Your task to perform on an android device: open a bookmark in the chrome app Image 0: 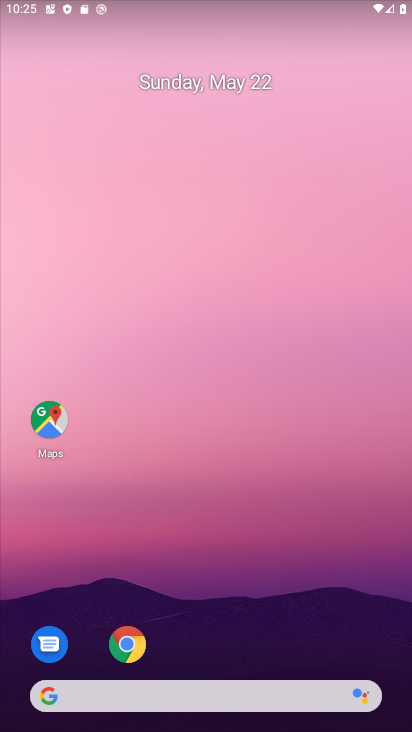
Step 0: click (129, 640)
Your task to perform on an android device: open a bookmark in the chrome app Image 1: 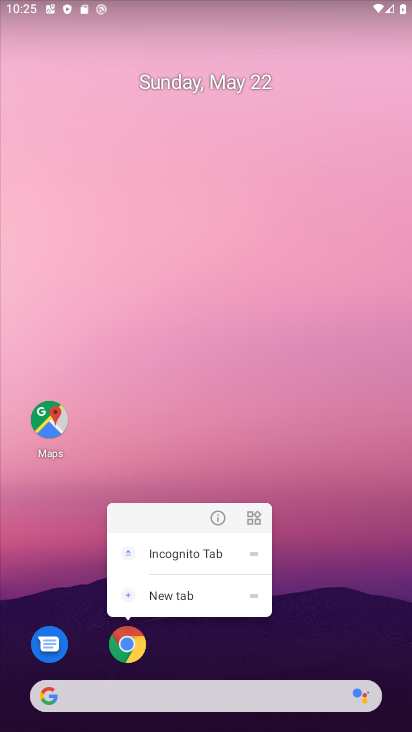
Step 1: click (133, 647)
Your task to perform on an android device: open a bookmark in the chrome app Image 2: 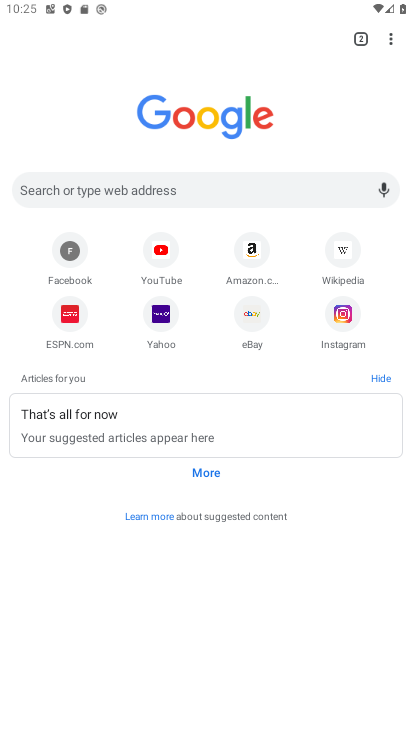
Step 2: click (391, 38)
Your task to perform on an android device: open a bookmark in the chrome app Image 3: 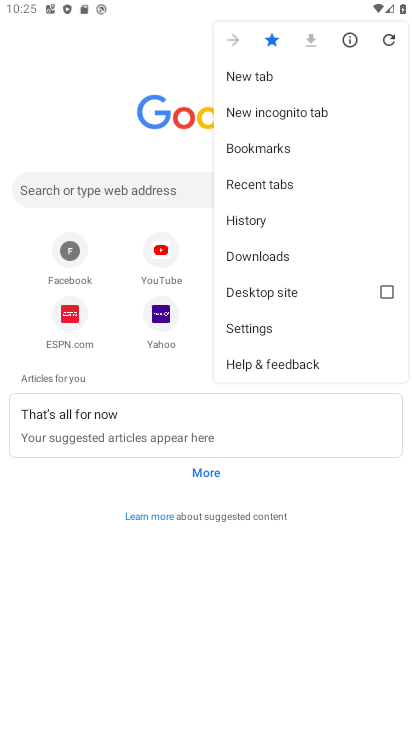
Step 3: click (238, 328)
Your task to perform on an android device: open a bookmark in the chrome app Image 4: 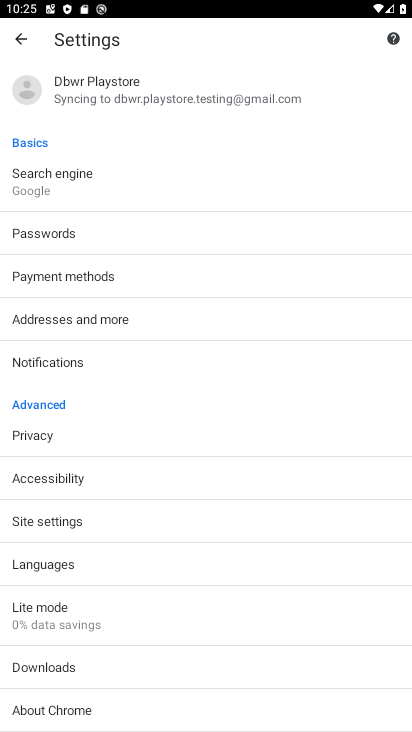
Step 4: click (24, 36)
Your task to perform on an android device: open a bookmark in the chrome app Image 5: 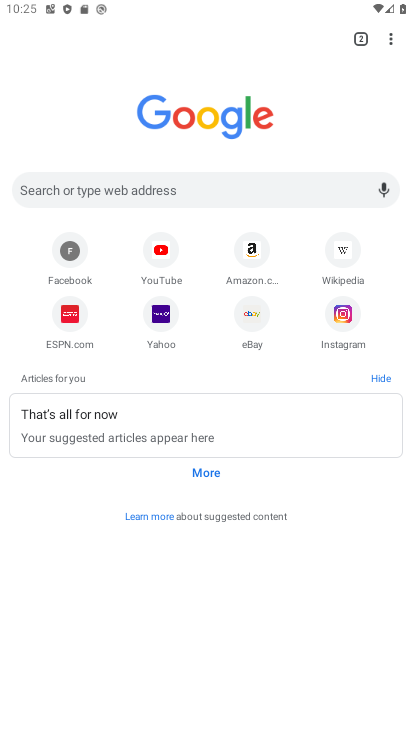
Step 5: click (393, 37)
Your task to perform on an android device: open a bookmark in the chrome app Image 6: 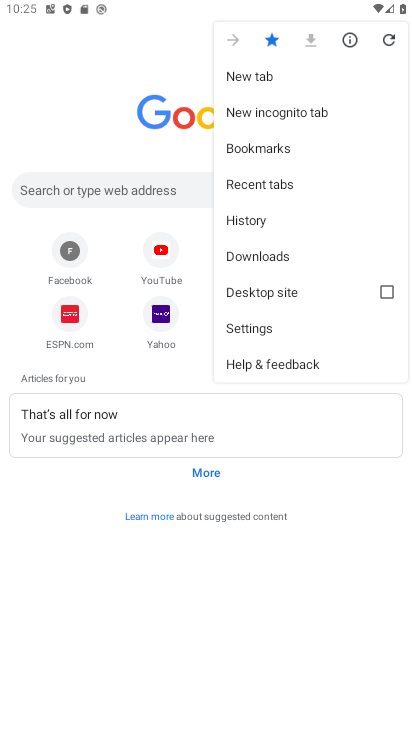
Step 6: click (240, 151)
Your task to perform on an android device: open a bookmark in the chrome app Image 7: 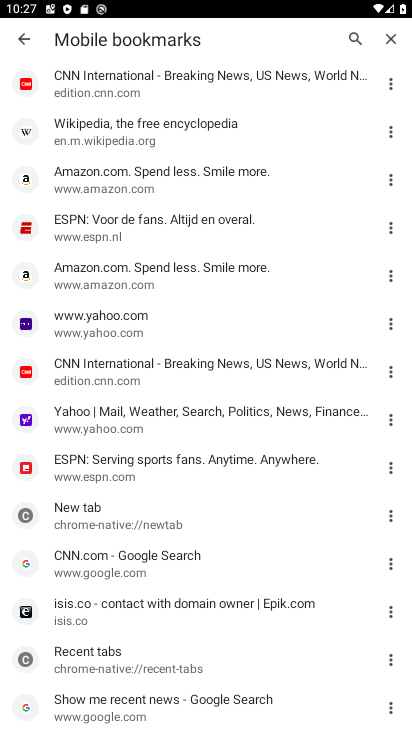
Step 7: task complete